Your task to perform on an android device: turn off wifi Image 0: 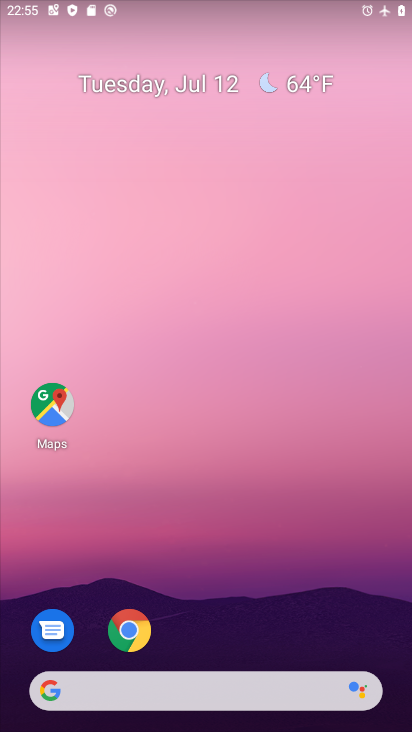
Step 0: drag from (207, 648) to (134, 95)
Your task to perform on an android device: turn off wifi Image 1: 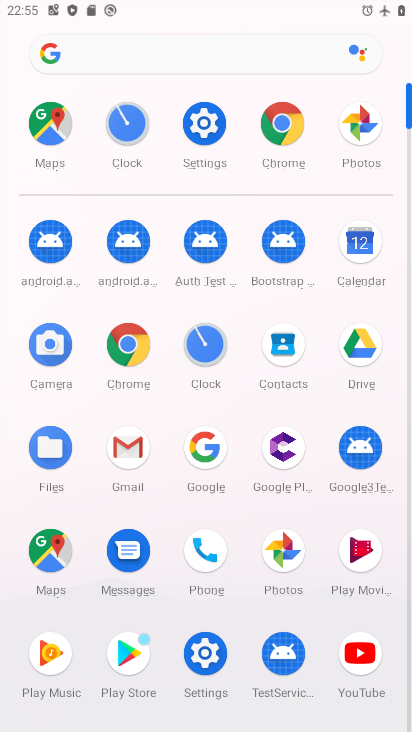
Step 1: click (212, 654)
Your task to perform on an android device: turn off wifi Image 2: 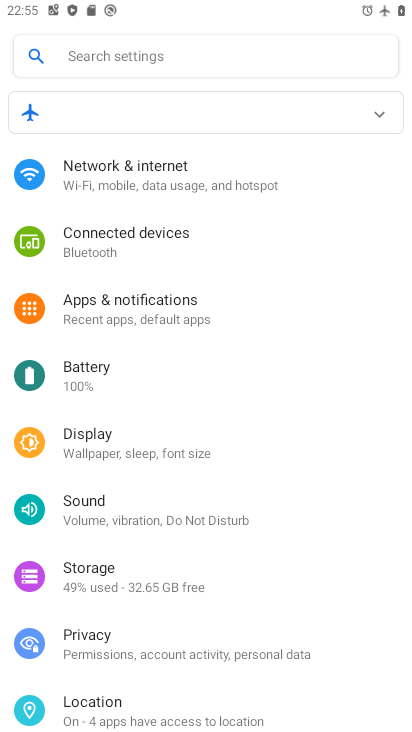
Step 2: click (136, 182)
Your task to perform on an android device: turn off wifi Image 3: 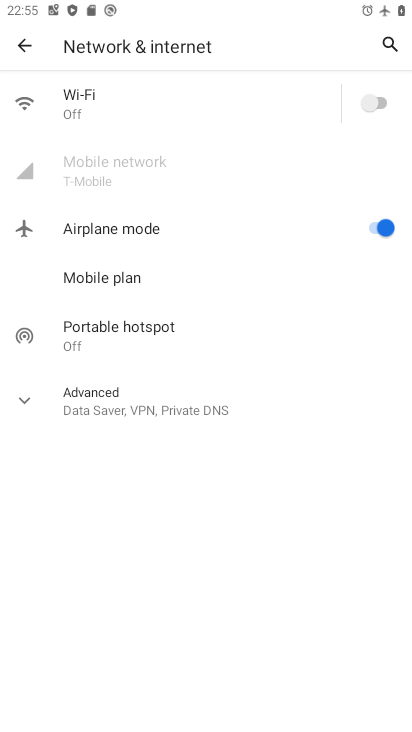
Step 3: task complete